Your task to perform on an android device: visit the assistant section in the google photos Image 0: 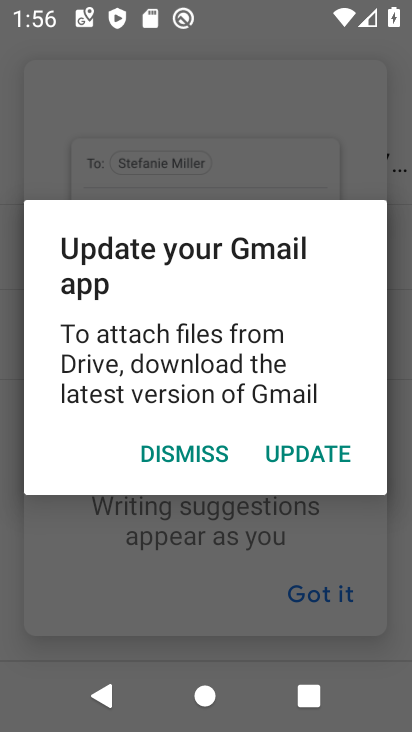
Step 0: press home button
Your task to perform on an android device: visit the assistant section in the google photos Image 1: 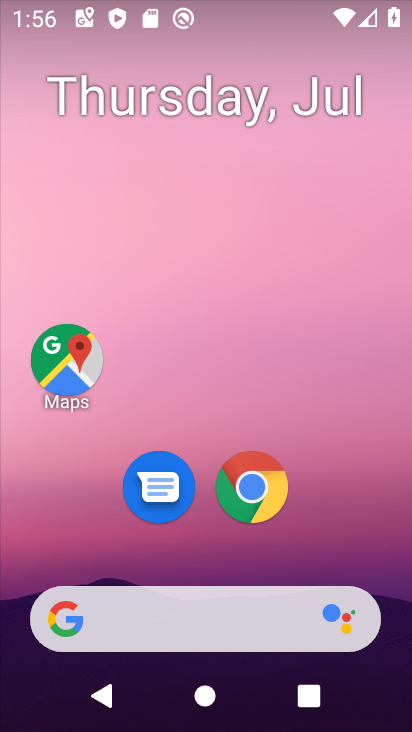
Step 1: drag from (389, 557) to (362, 203)
Your task to perform on an android device: visit the assistant section in the google photos Image 2: 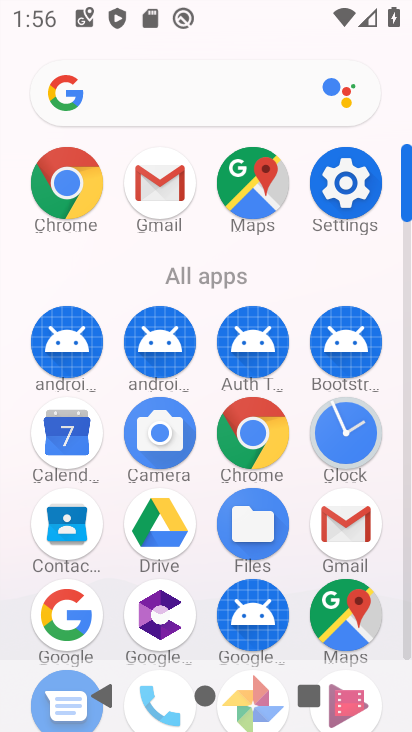
Step 2: drag from (389, 572) to (377, 374)
Your task to perform on an android device: visit the assistant section in the google photos Image 3: 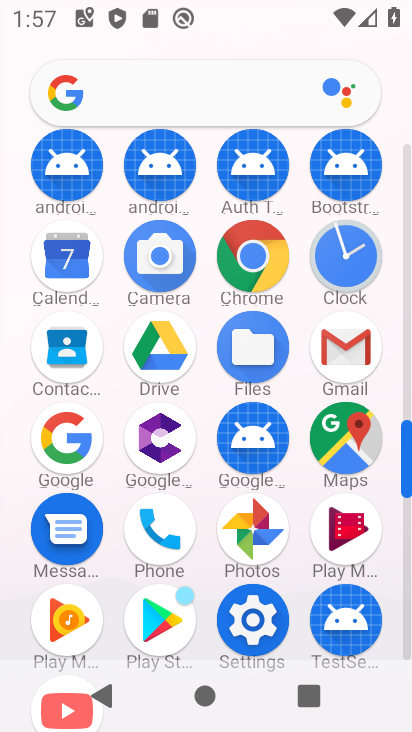
Step 3: click (259, 537)
Your task to perform on an android device: visit the assistant section in the google photos Image 4: 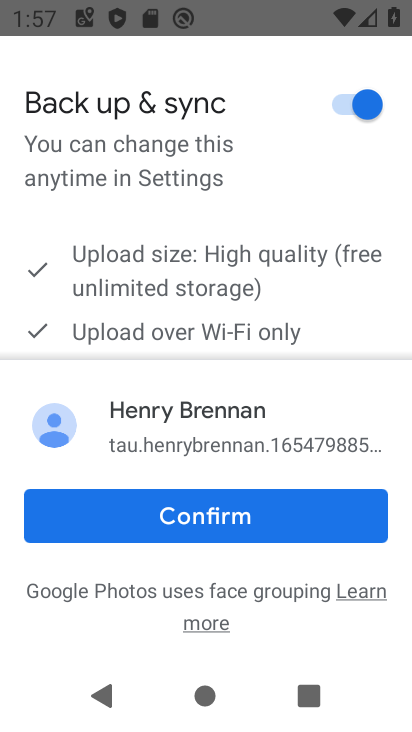
Step 4: click (275, 517)
Your task to perform on an android device: visit the assistant section in the google photos Image 5: 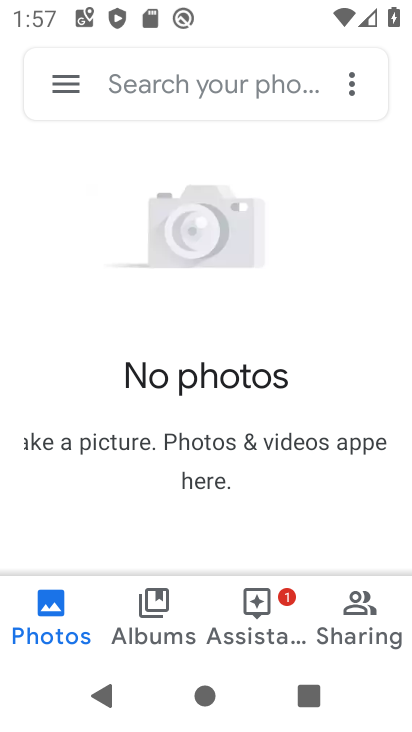
Step 5: click (261, 600)
Your task to perform on an android device: visit the assistant section in the google photos Image 6: 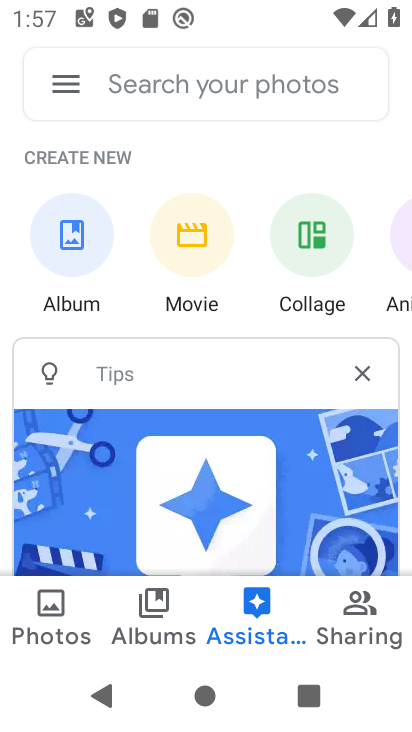
Step 6: task complete